Your task to perform on an android device: What's the latest news in astrophysics? Image 0: 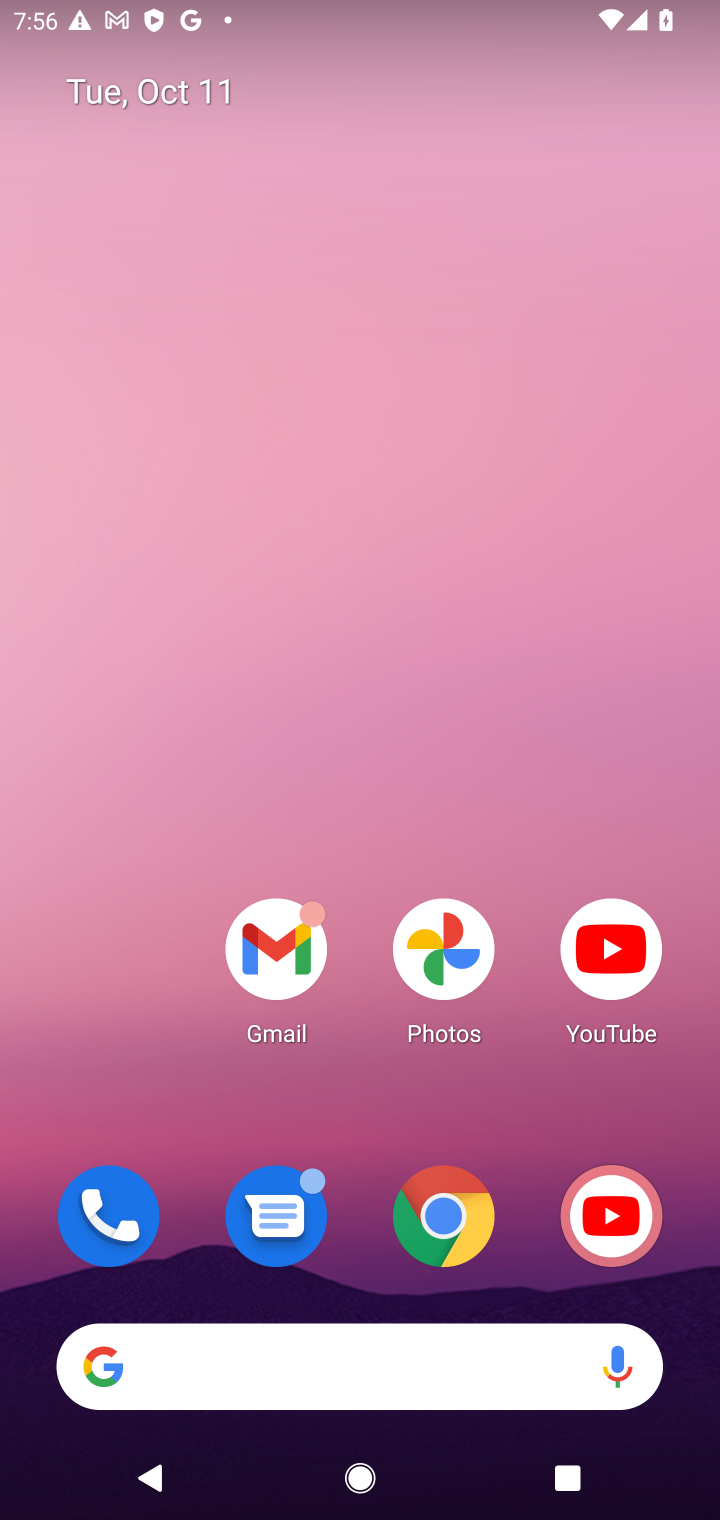
Step 0: click (390, 1210)
Your task to perform on an android device: What's the latest news in astrophysics? Image 1: 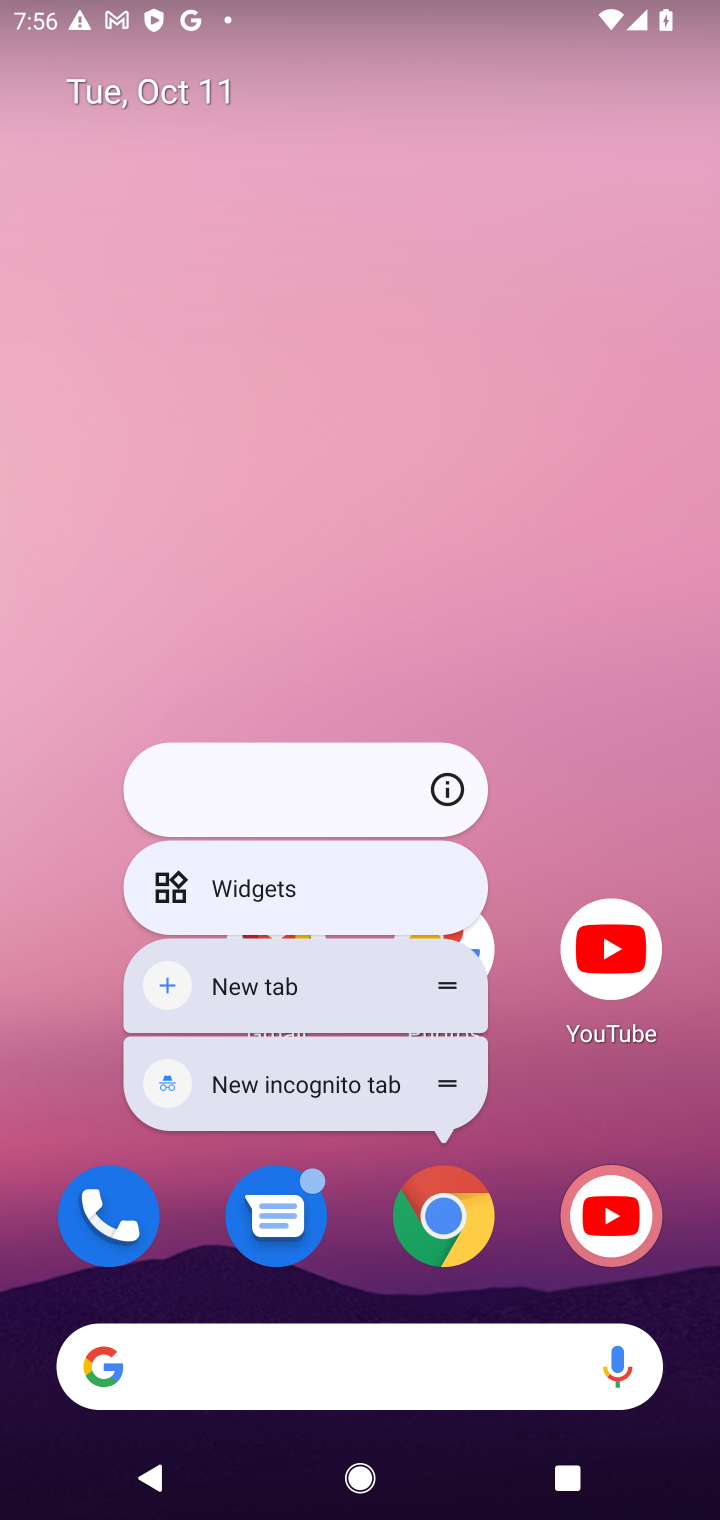
Step 1: click (403, 1208)
Your task to perform on an android device: What's the latest news in astrophysics? Image 2: 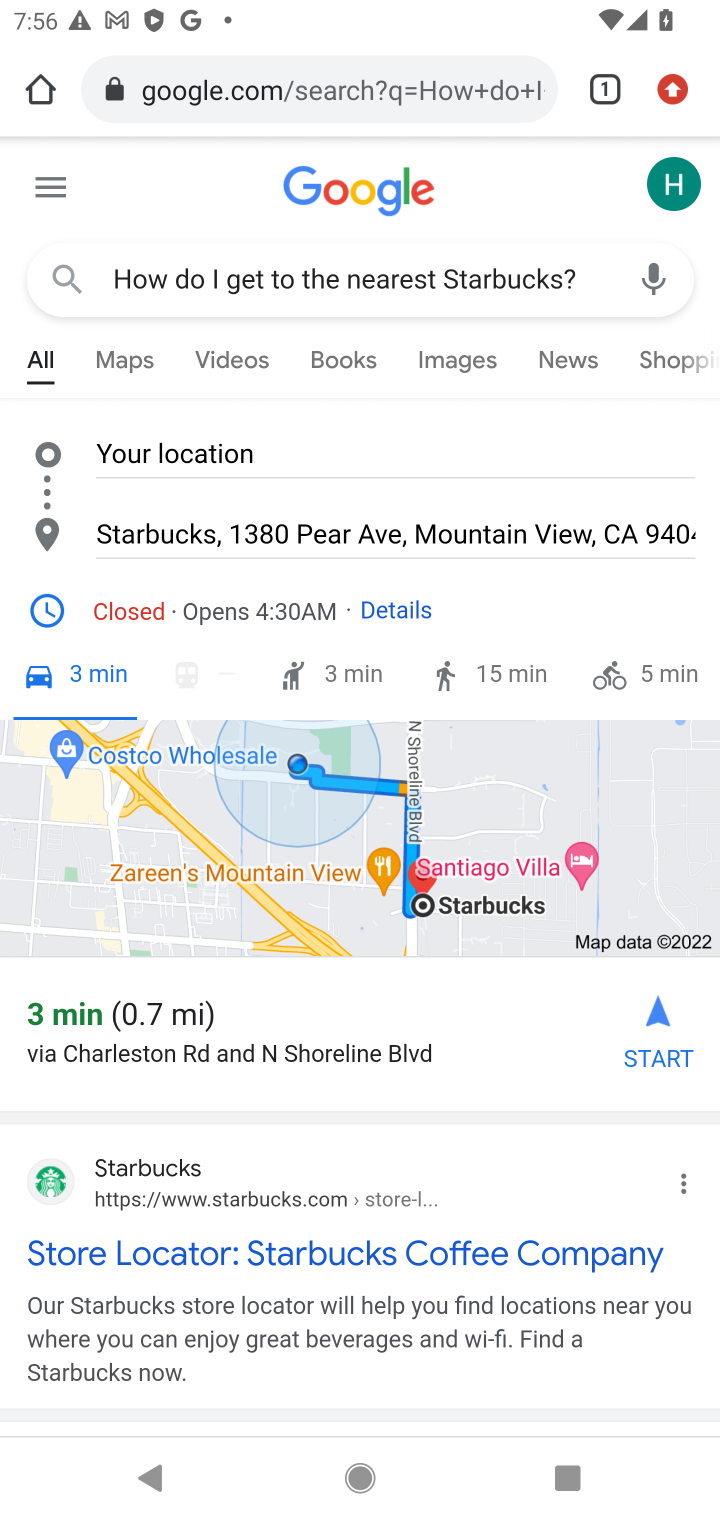
Step 2: click (484, 273)
Your task to perform on an android device: What's the latest news in astrophysics? Image 3: 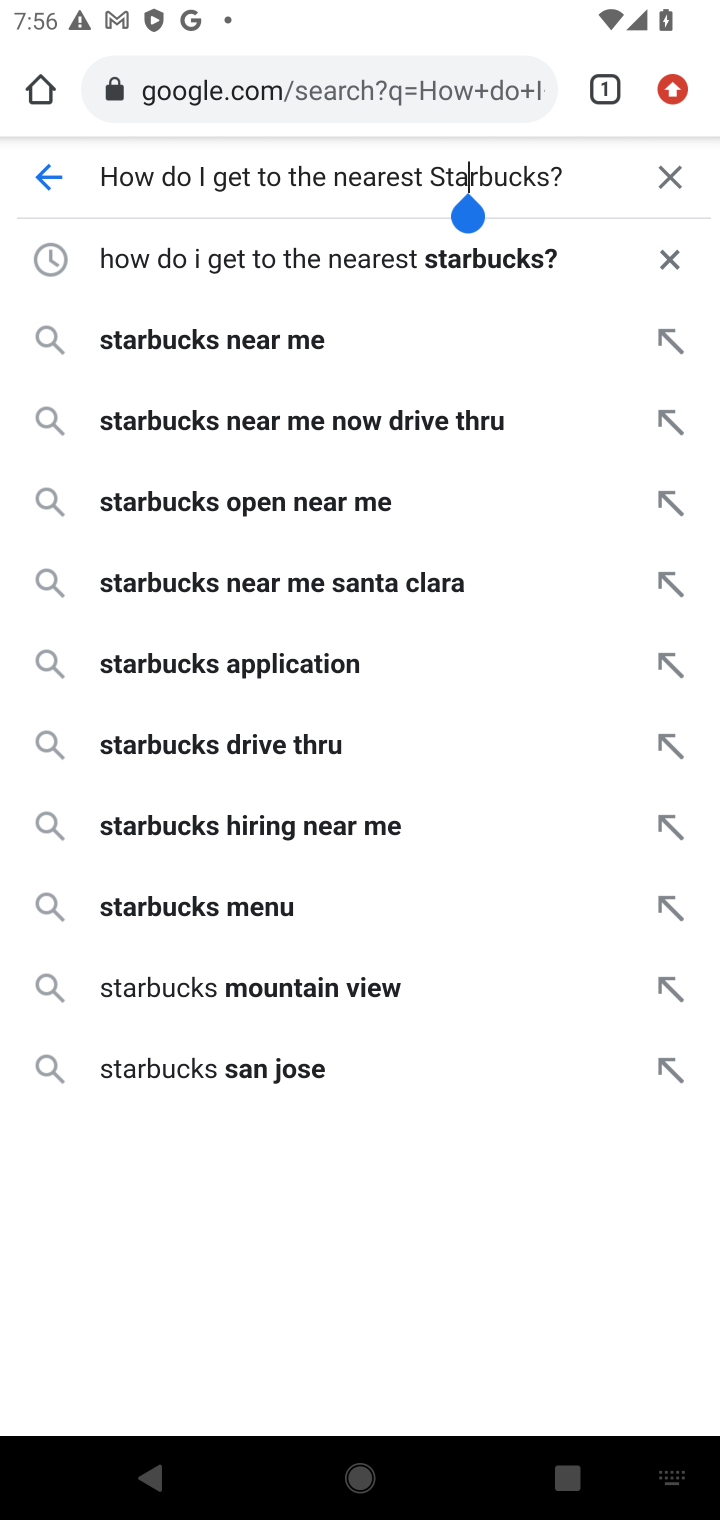
Step 3: click (674, 177)
Your task to perform on an android device: What's the latest news in astrophysics? Image 4: 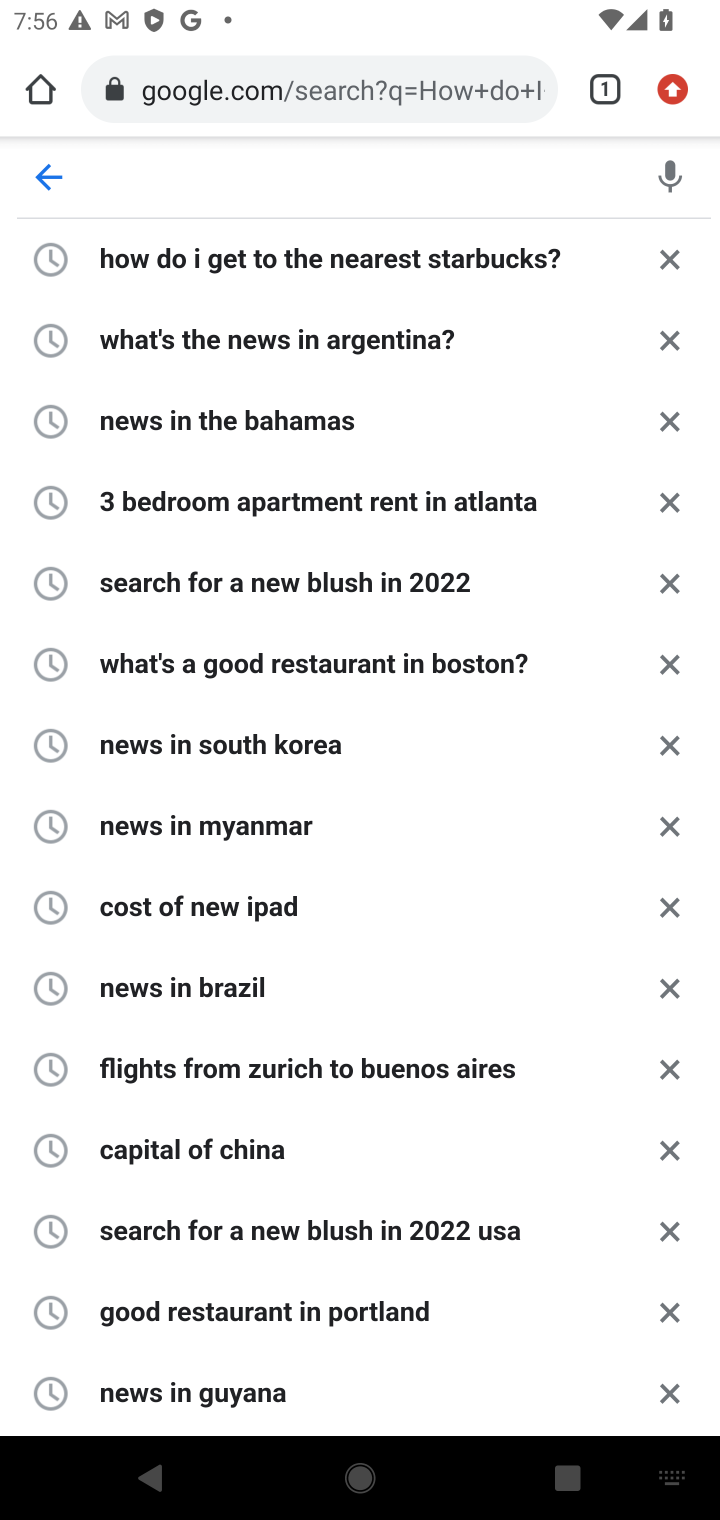
Step 4: type "What's the latest news in astrophysics?"
Your task to perform on an android device: What's the latest news in astrophysics? Image 5: 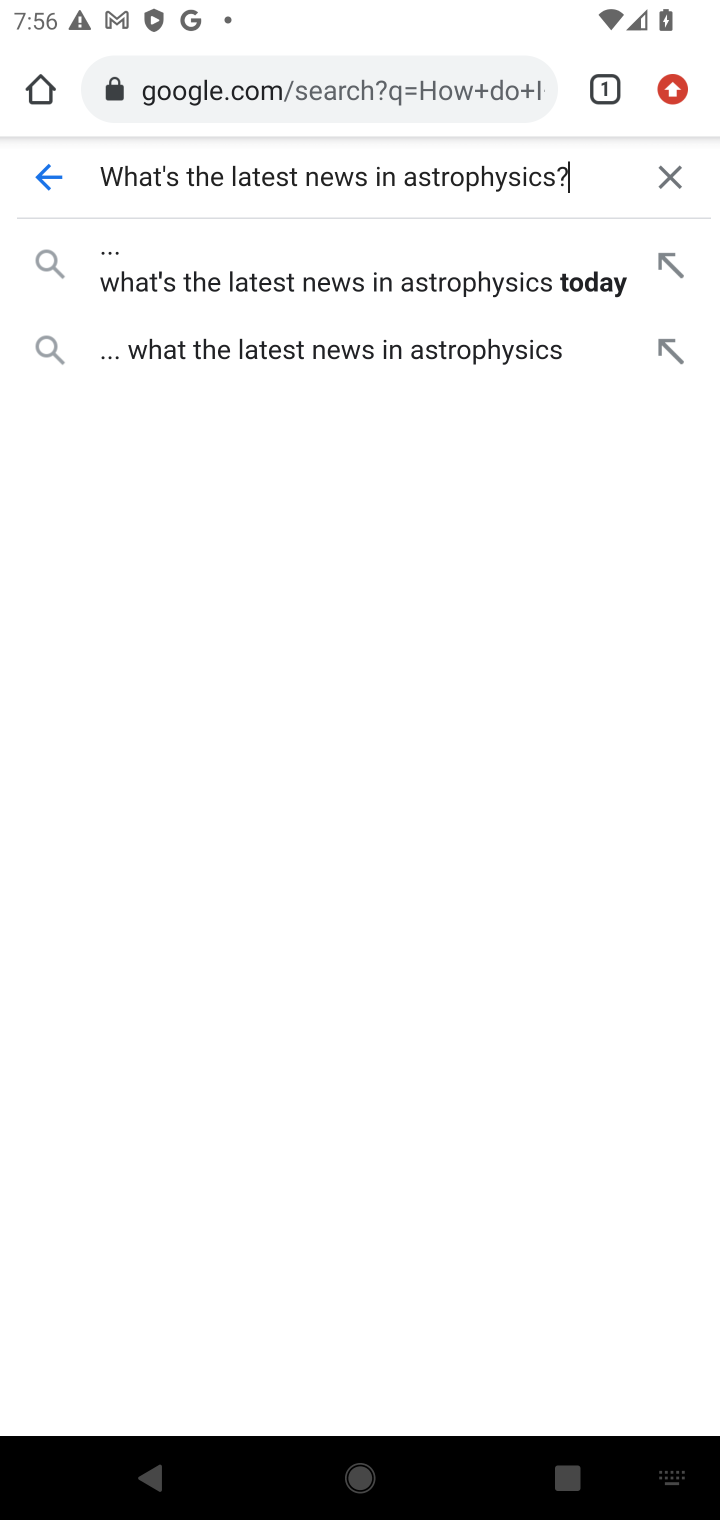
Step 5: press enter
Your task to perform on an android device: What's the latest news in astrophysics? Image 6: 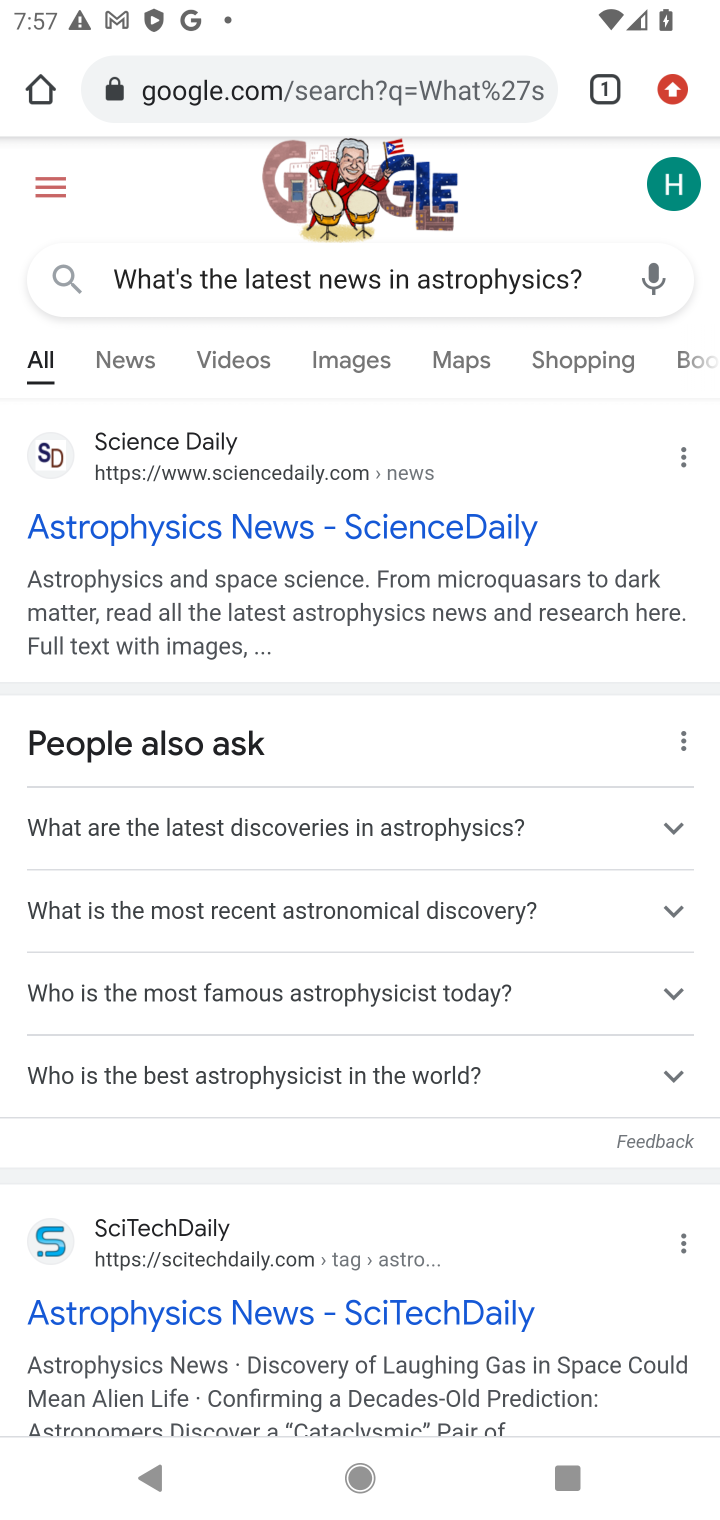
Step 6: click (104, 369)
Your task to perform on an android device: What's the latest news in astrophysics? Image 7: 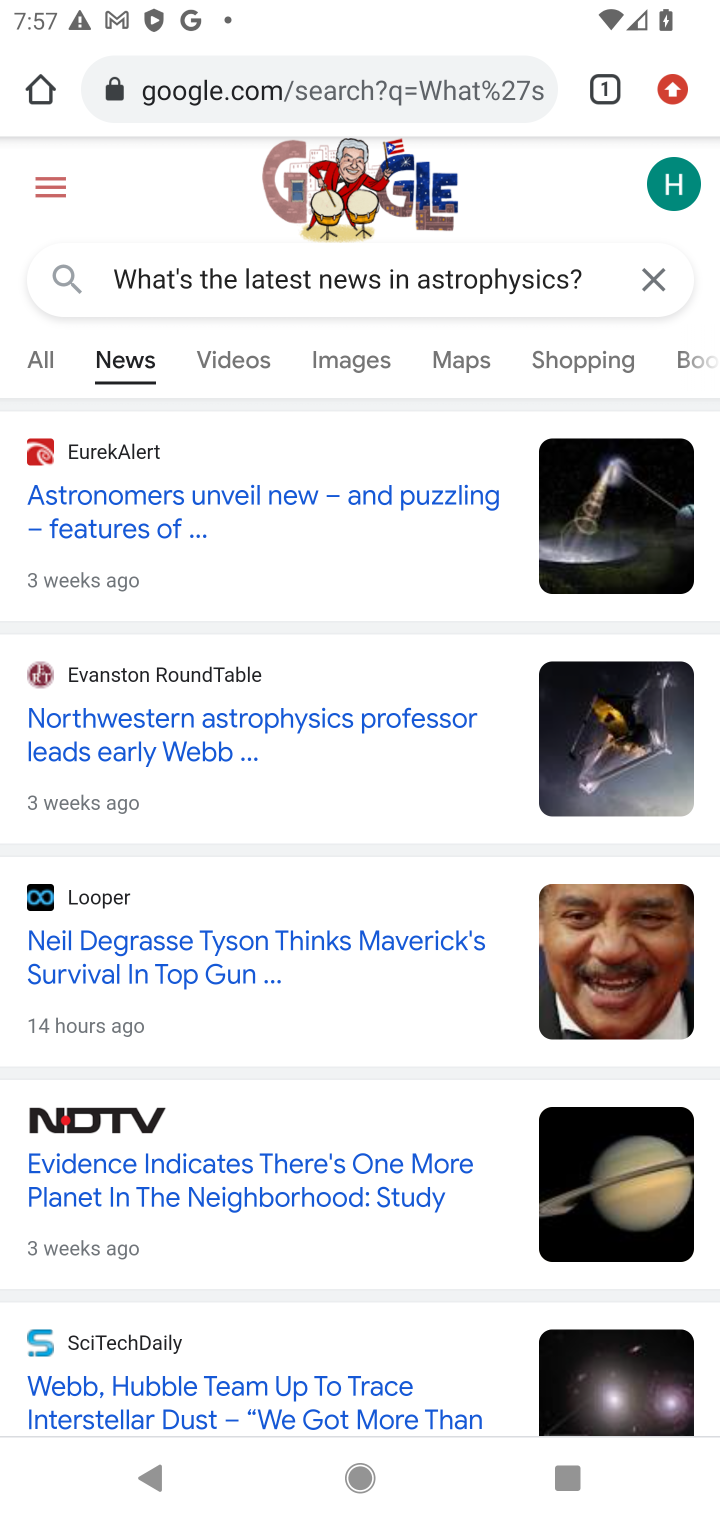
Step 7: task complete